Your task to perform on an android device: Turn on the flashlight Image 0: 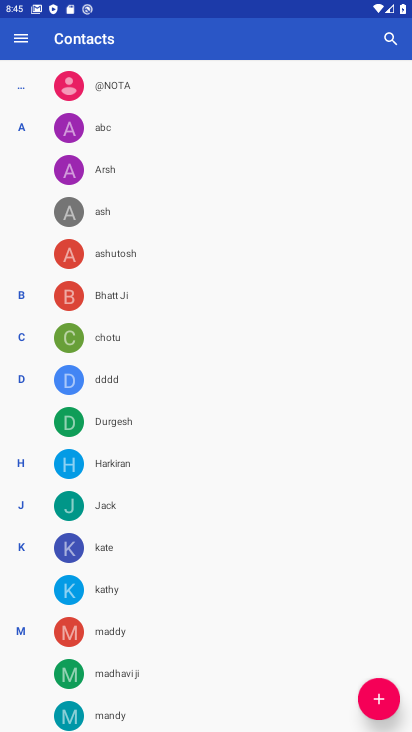
Step 0: press home button
Your task to perform on an android device: Turn on the flashlight Image 1: 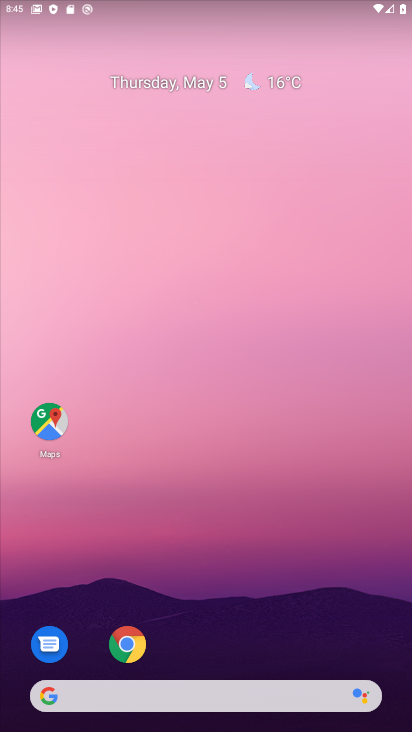
Step 1: drag from (247, 14) to (145, 629)
Your task to perform on an android device: Turn on the flashlight Image 2: 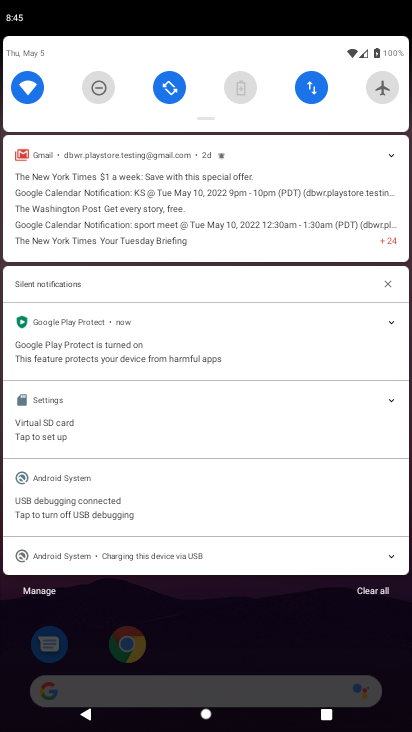
Step 2: drag from (118, 89) to (108, 441)
Your task to perform on an android device: Turn on the flashlight Image 3: 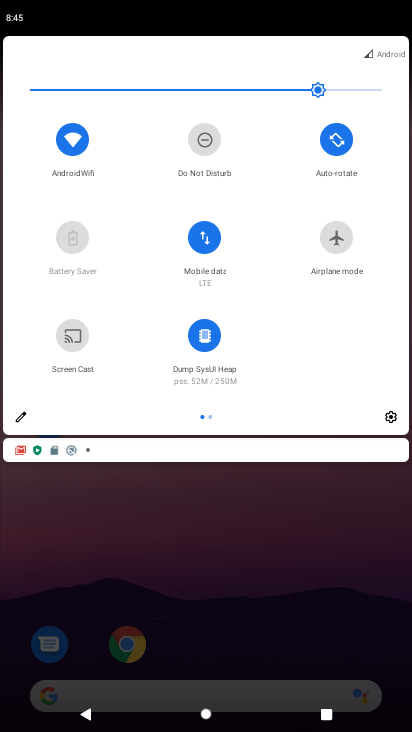
Step 3: drag from (340, 301) to (27, 326)
Your task to perform on an android device: Turn on the flashlight Image 4: 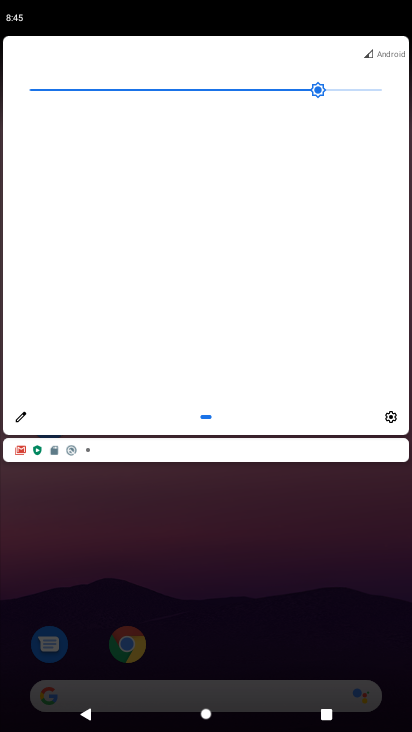
Step 4: drag from (321, 260) to (40, 306)
Your task to perform on an android device: Turn on the flashlight Image 5: 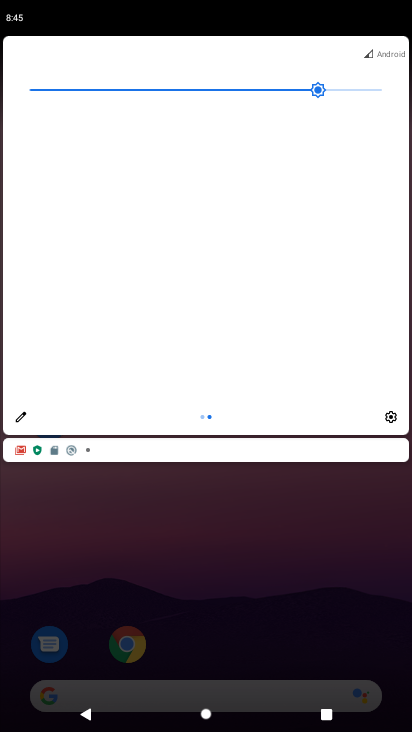
Step 5: click (21, 422)
Your task to perform on an android device: Turn on the flashlight Image 6: 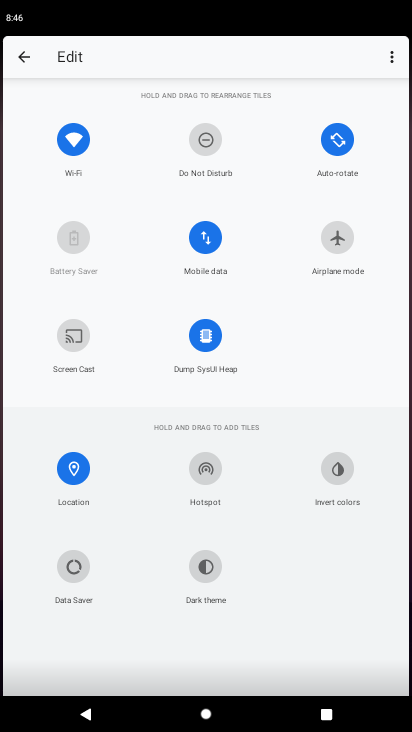
Step 6: task complete